Your task to perform on an android device: Open calendar and show me the fourth week of next month Image 0: 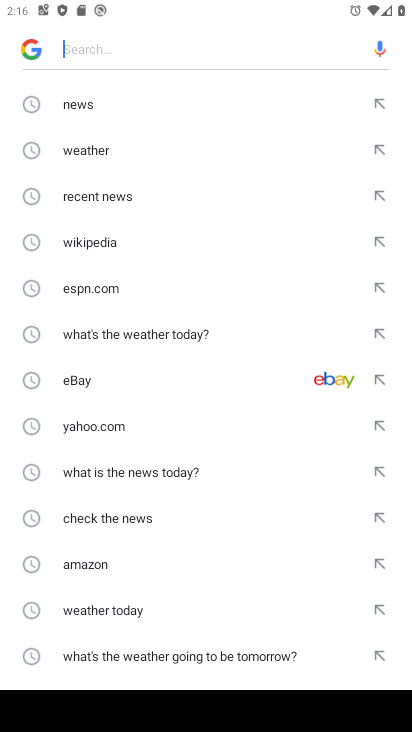
Step 0: press home button
Your task to perform on an android device: Open calendar and show me the fourth week of next month Image 1: 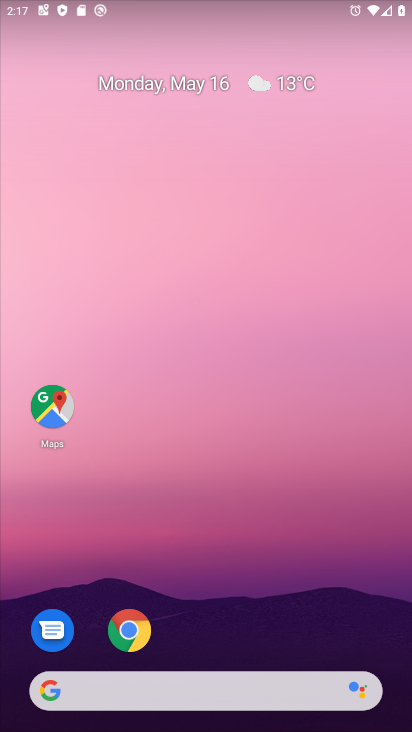
Step 1: click (200, 83)
Your task to perform on an android device: Open calendar and show me the fourth week of next month Image 2: 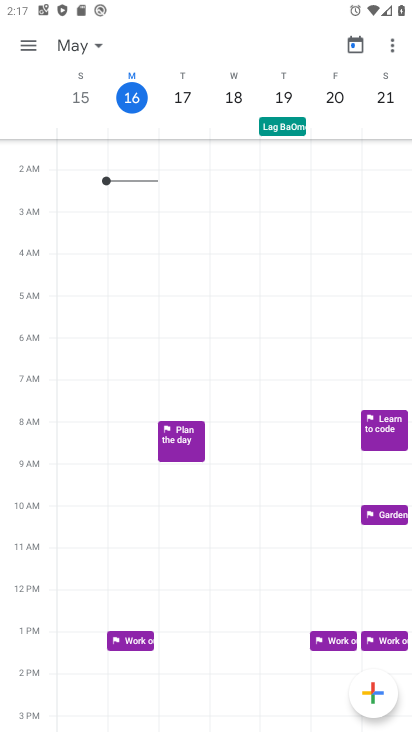
Step 2: click (15, 31)
Your task to perform on an android device: Open calendar and show me the fourth week of next month Image 3: 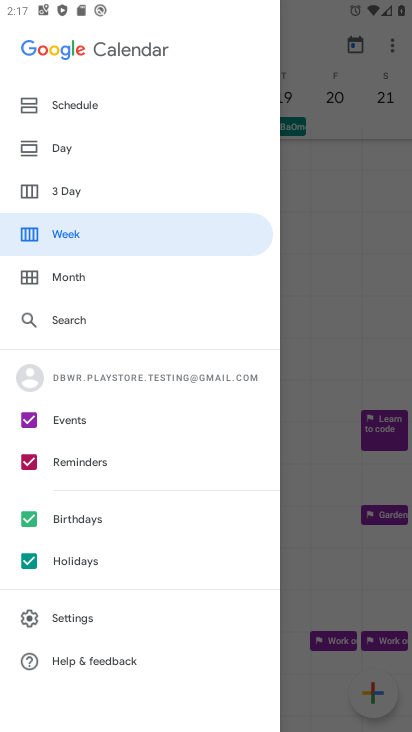
Step 3: click (346, 202)
Your task to perform on an android device: Open calendar and show me the fourth week of next month Image 4: 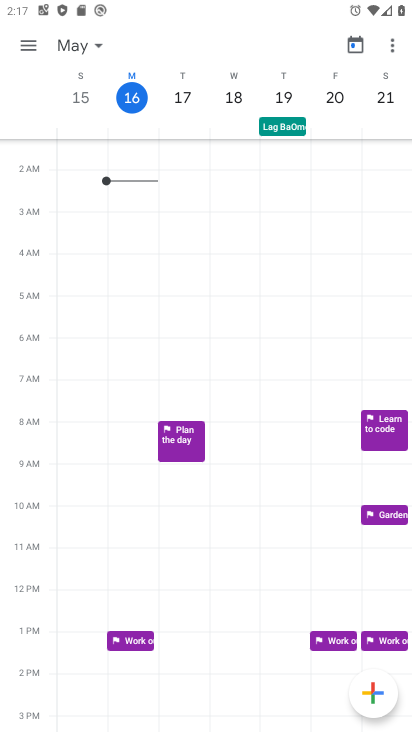
Step 4: click (68, 35)
Your task to perform on an android device: Open calendar and show me the fourth week of next month Image 5: 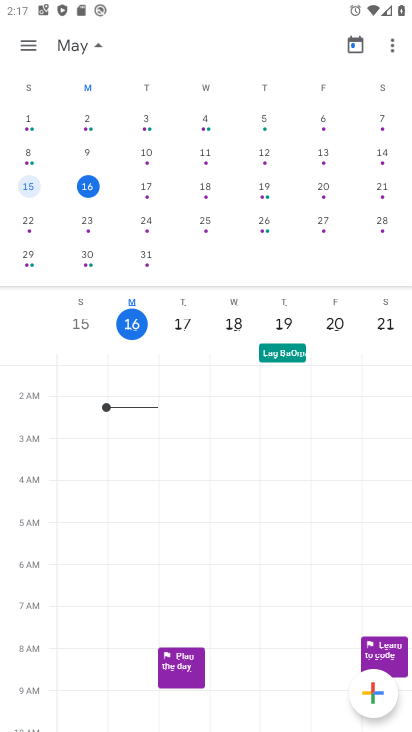
Step 5: click (17, 37)
Your task to perform on an android device: Open calendar and show me the fourth week of next month Image 6: 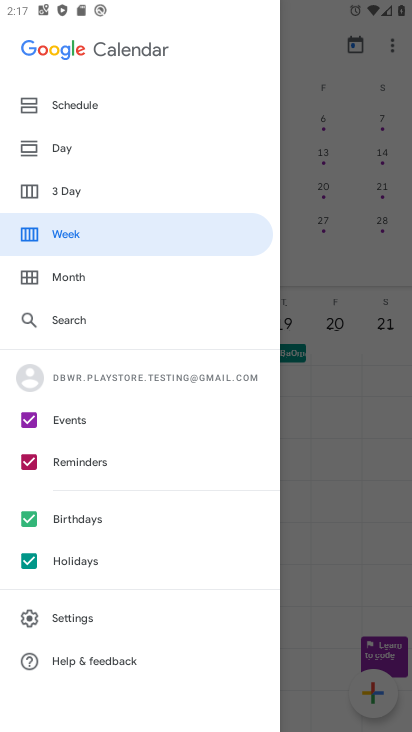
Step 6: click (90, 320)
Your task to perform on an android device: Open calendar and show me the fourth week of next month Image 7: 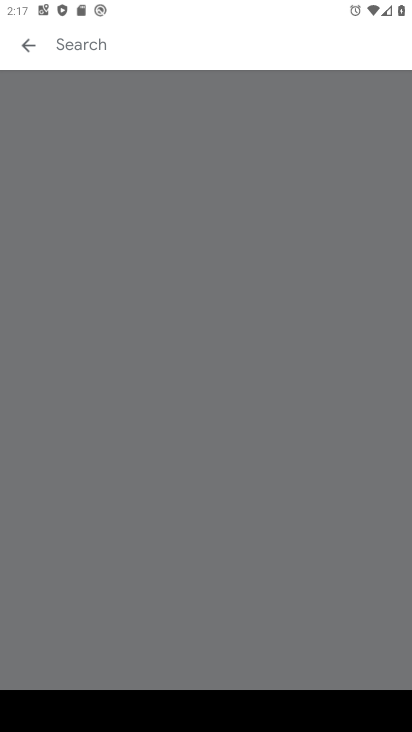
Step 7: type "fourth week of next month"
Your task to perform on an android device: Open calendar and show me the fourth week of next month Image 8: 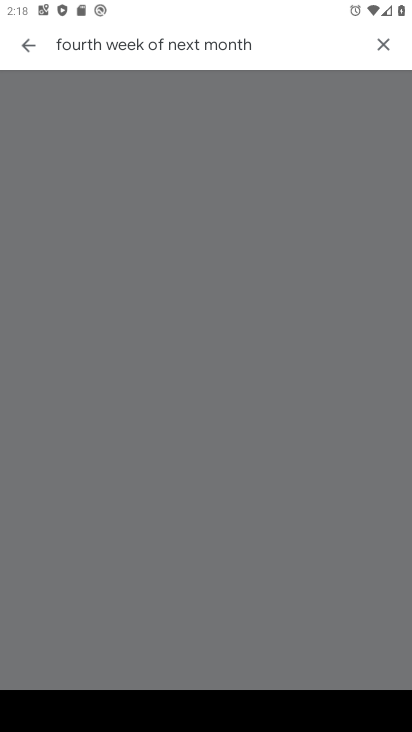
Step 8: press home button
Your task to perform on an android device: Open calendar and show me the fourth week of next month Image 9: 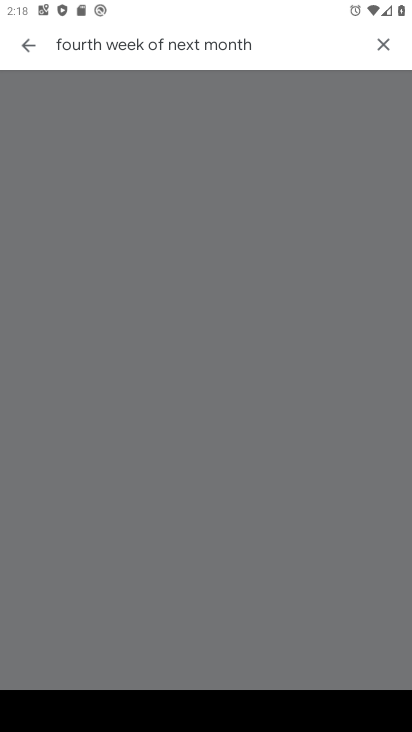
Step 9: type " "
Your task to perform on an android device: Open calendar and show me the fourth week of next month Image 10: 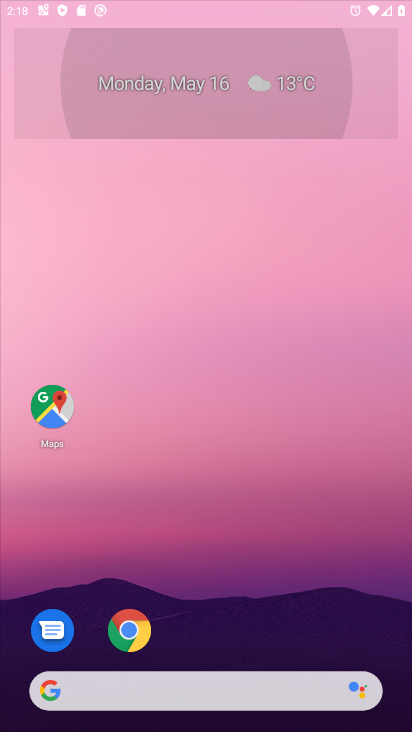
Step 10: press home button
Your task to perform on an android device: Open calendar and show me the fourth week of next month Image 11: 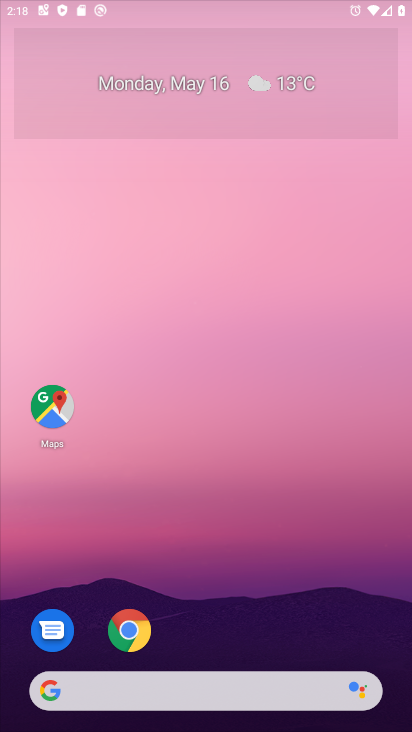
Step 11: press home button
Your task to perform on an android device: Open calendar and show me the fourth week of next month Image 12: 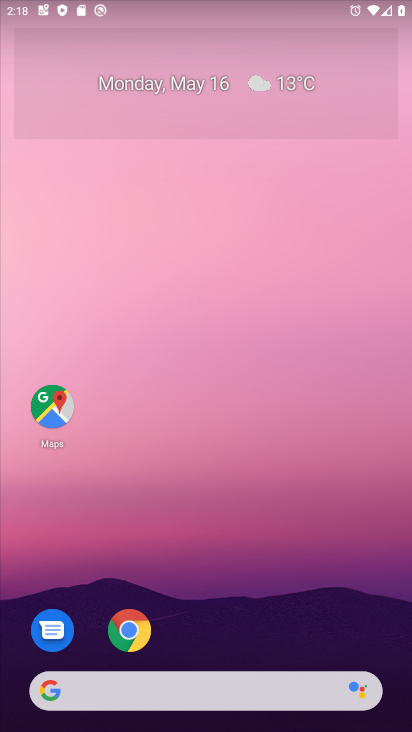
Step 12: click (194, 684)
Your task to perform on an android device: Open calendar and show me the fourth week of next month Image 13: 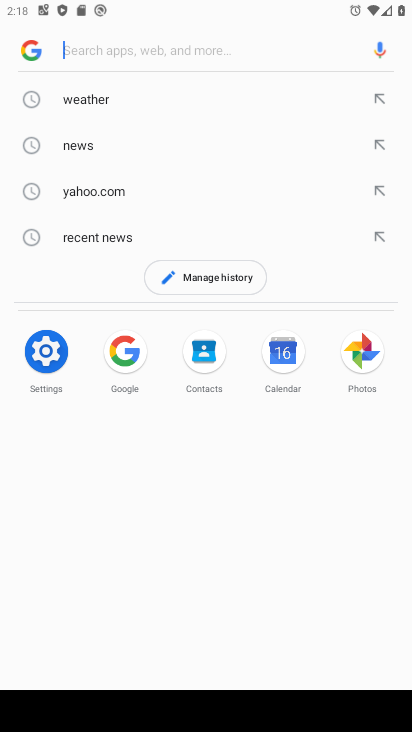
Step 13: click (124, 32)
Your task to perform on an android device: Open calendar and show me the fourth week of next month Image 14: 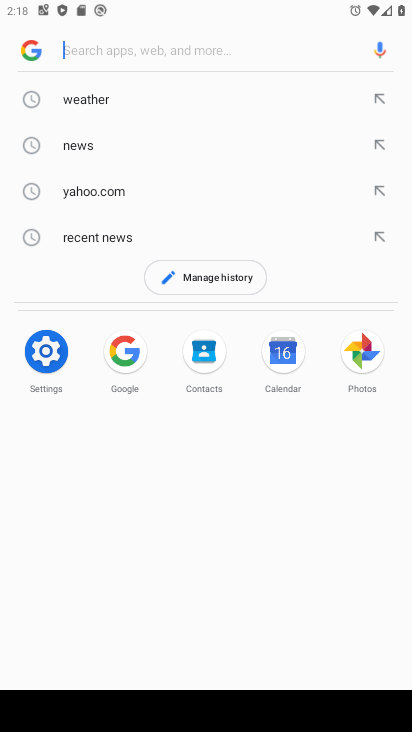
Step 14: type "fourth week of next month"
Your task to perform on an android device: Open calendar and show me the fourth week of next month Image 15: 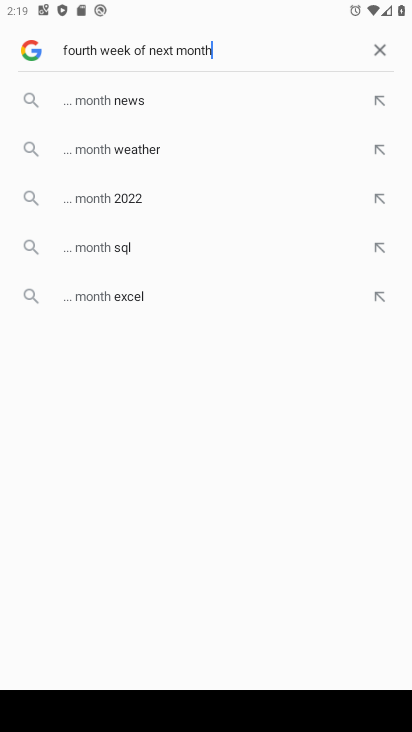
Step 15: type " 2022"
Your task to perform on an android device: Open calendar and show me the fourth week of next month Image 16: 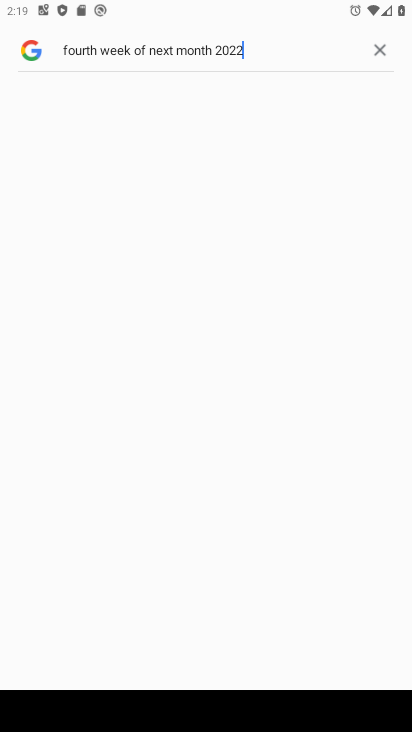
Step 16: type " "
Your task to perform on an android device: Open calendar and show me the fourth week of next month Image 17: 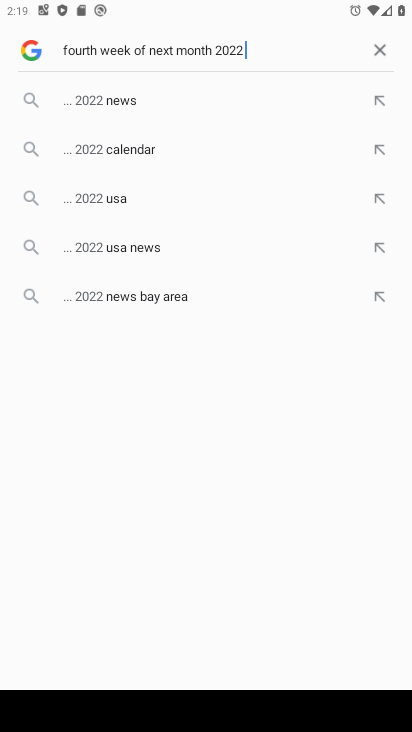
Step 17: click (130, 144)
Your task to perform on an android device: Open calendar and show me the fourth week of next month Image 18: 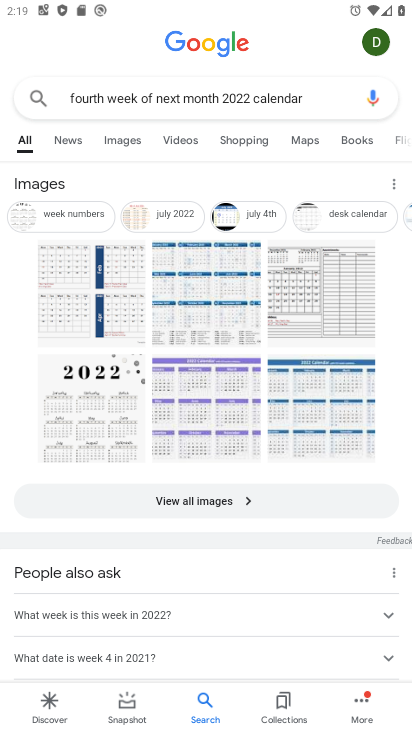
Step 18: press home button
Your task to perform on an android device: Open calendar and show me the fourth week of next month Image 19: 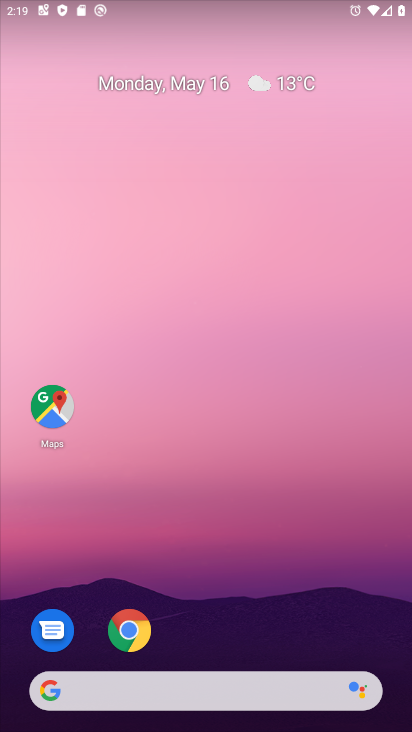
Step 19: click (170, 80)
Your task to perform on an android device: Open calendar and show me the fourth week of next month Image 20: 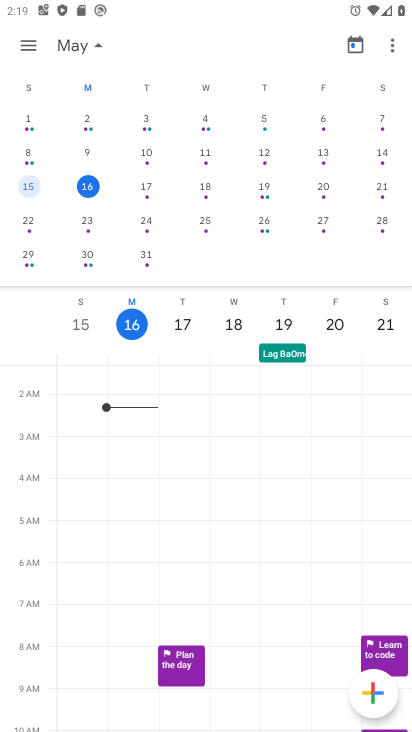
Step 20: click (85, 46)
Your task to perform on an android device: Open calendar and show me the fourth week of next month Image 21: 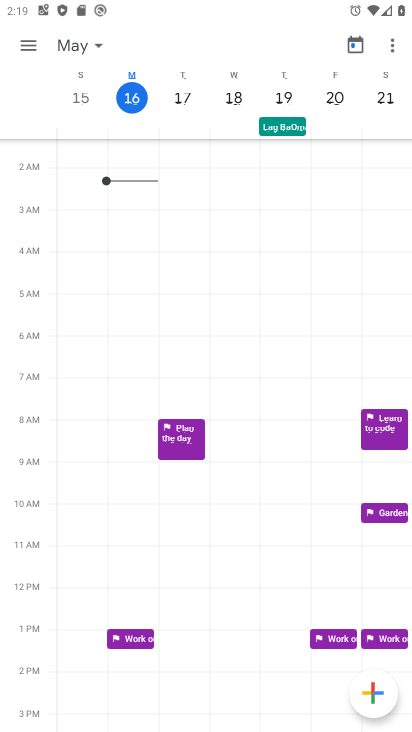
Step 21: click (85, 50)
Your task to perform on an android device: Open calendar and show me the fourth week of next month Image 22: 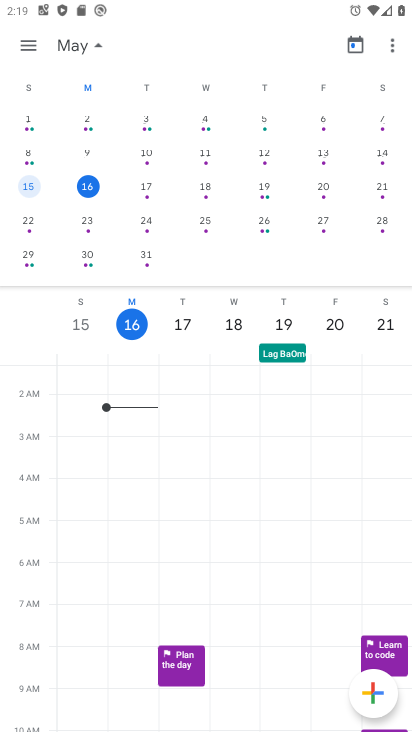
Step 22: click (97, 40)
Your task to perform on an android device: Open calendar and show me the fourth week of next month Image 23: 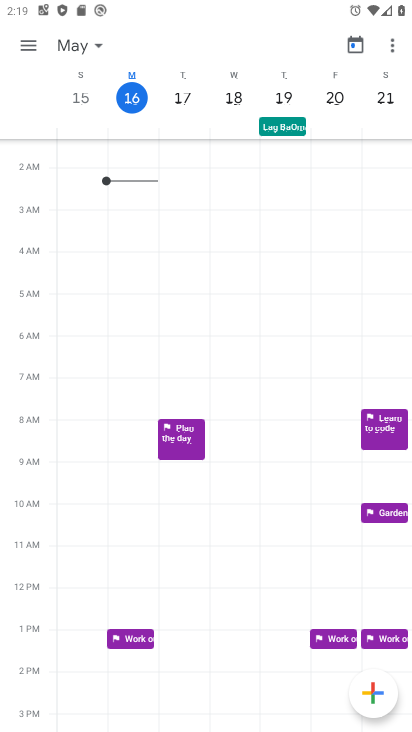
Step 23: click (264, 319)
Your task to perform on an android device: Open calendar and show me the fourth week of next month Image 24: 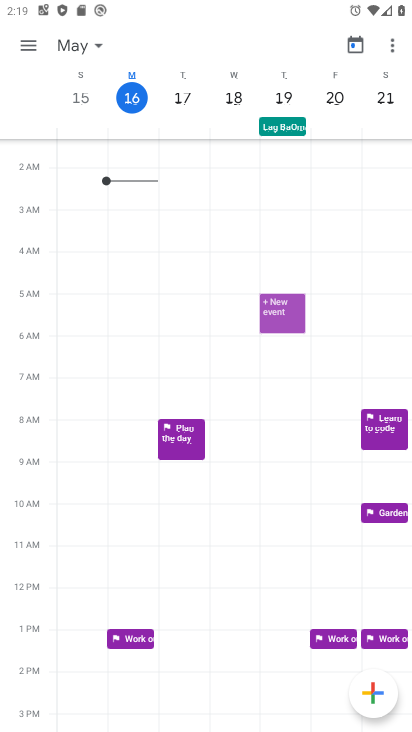
Step 24: task complete